Your task to perform on an android device: open wifi settings Image 0: 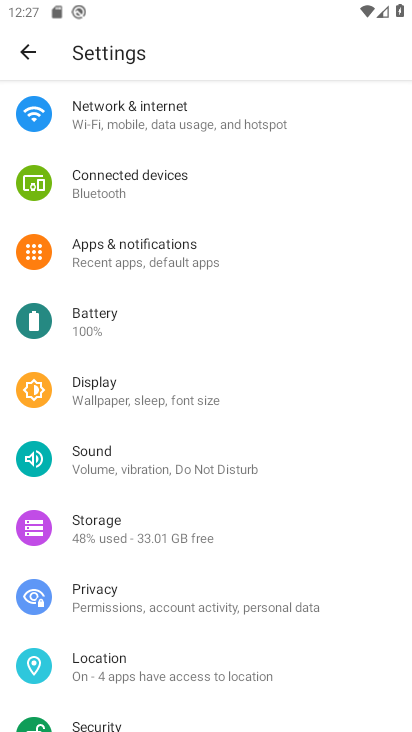
Step 0: click (213, 129)
Your task to perform on an android device: open wifi settings Image 1: 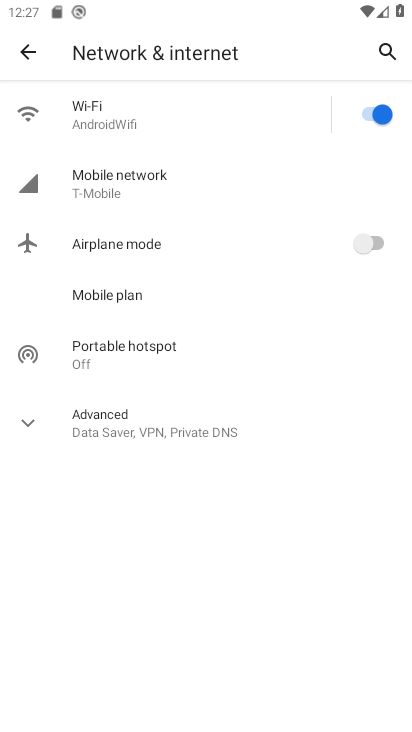
Step 1: click (147, 126)
Your task to perform on an android device: open wifi settings Image 2: 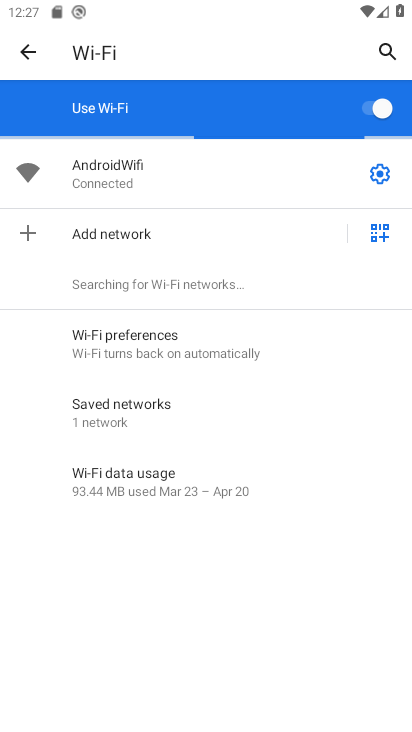
Step 2: task complete